Your task to perform on an android device: Find the nearest electronics store that's open Image 0: 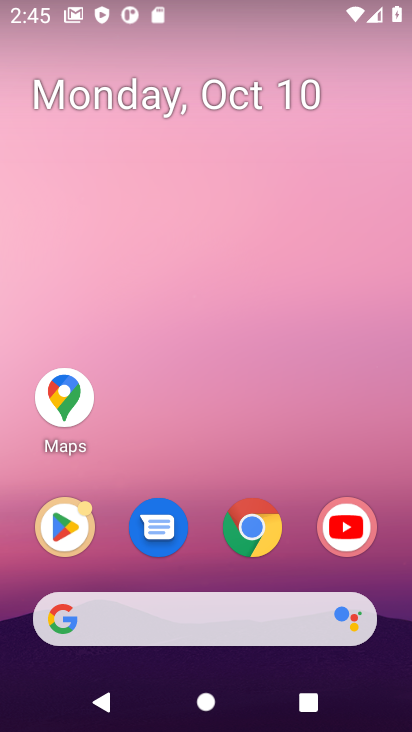
Step 0: press home button
Your task to perform on an android device: Find the nearest electronics store that's open Image 1: 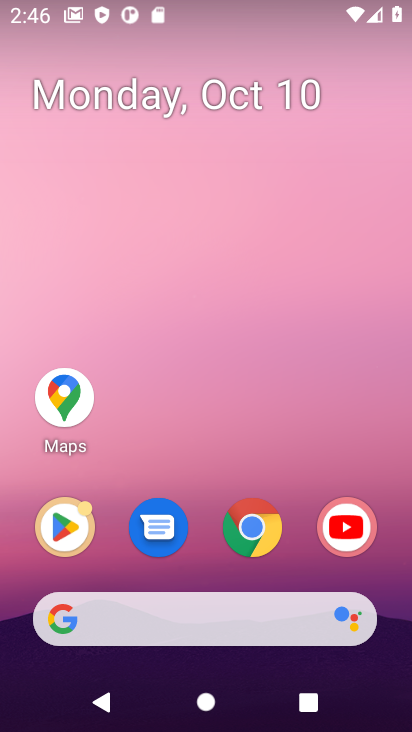
Step 1: click (249, 622)
Your task to perform on an android device: Find the nearest electronics store that's open Image 2: 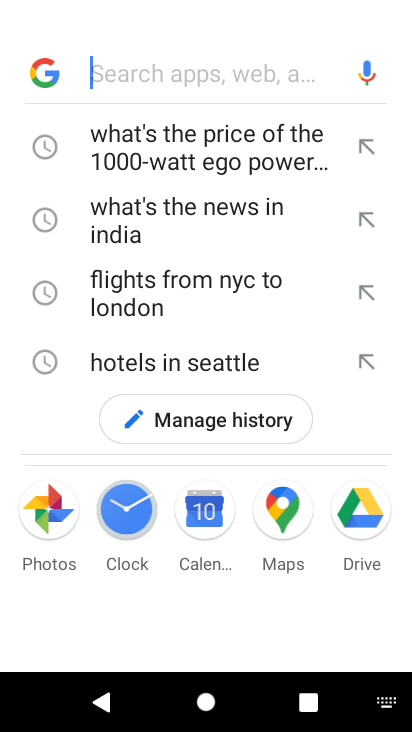
Step 2: type "Find the nearest electronics store that's open"
Your task to perform on an android device: Find the nearest electronics store that's open Image 3: 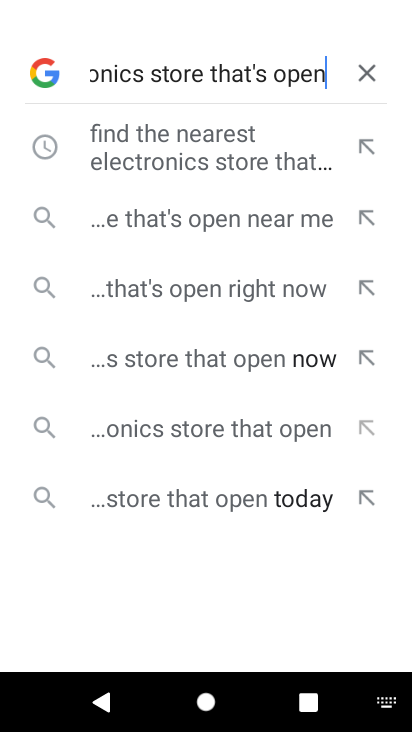
Step 3: press enter
Your task to perform on an android device: Find the nearest electronics store that's open Image 4: 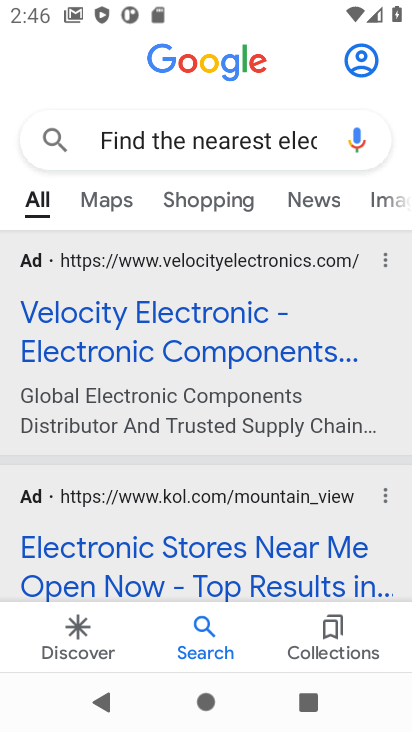
Step 4: task complete